Your task to perform on an android device: Go to Android settings Image 0: 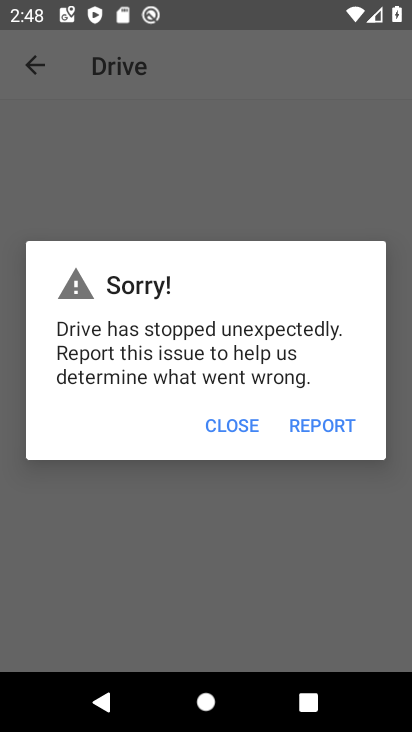
Step 0: press home button
Your task to perform on an android device: Go to Android settings Image 1: 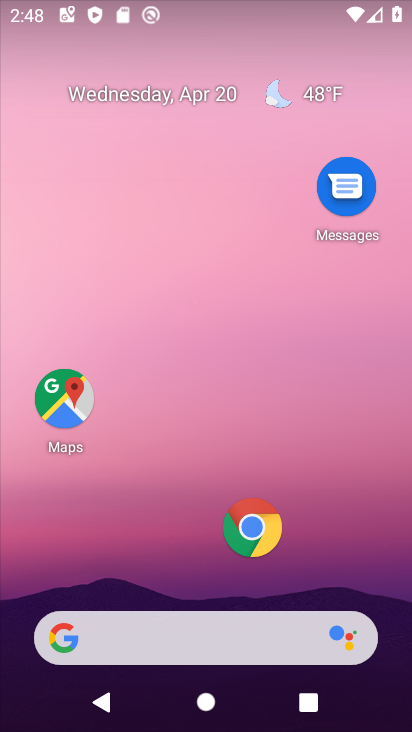
Step 1: drag from (183, 639) to (354, 24)
Your task to perform on an android device: Go to Android settings Image 2: 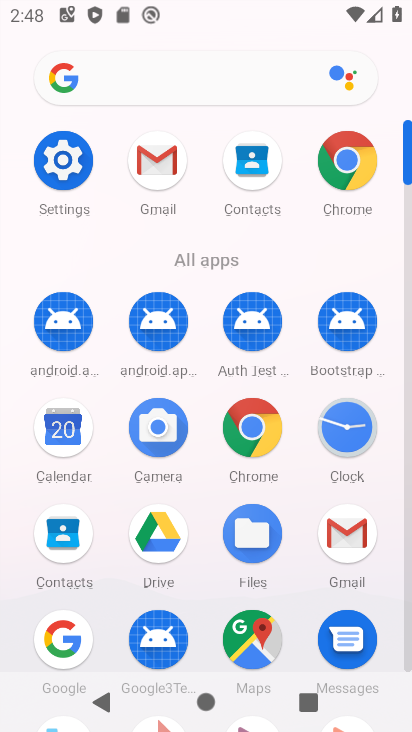
Step 2: click (73, 164)
Your task to perform on an android device: Go to Android settings Image 3: 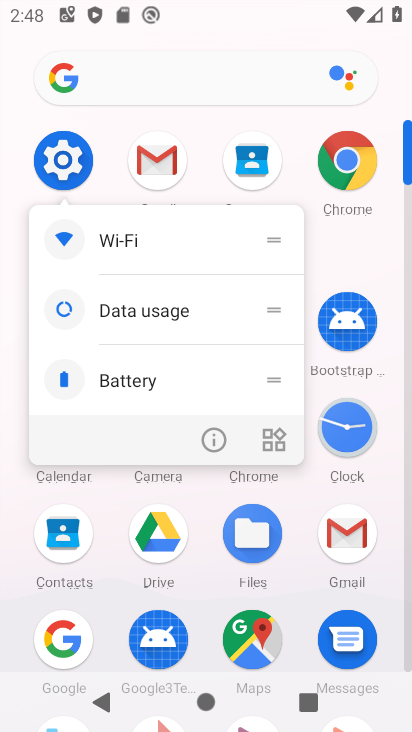
Step 3: click (66, 158)
Your task to perform on an android device: Go to Android settings Image 4: 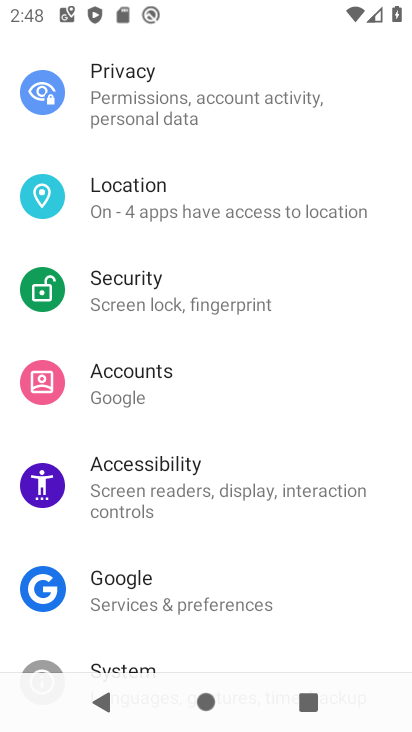
Step 4: drag from (205, 411) to (363, 114)
Your task to perform on an android device: Go to Android settings Image 5: 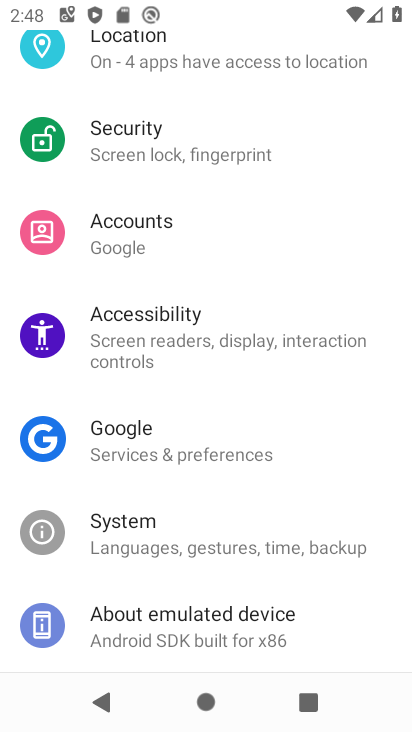
Step 5: click (180, 611)
Your task to perform on an android device: Go to Android settings Image 6: 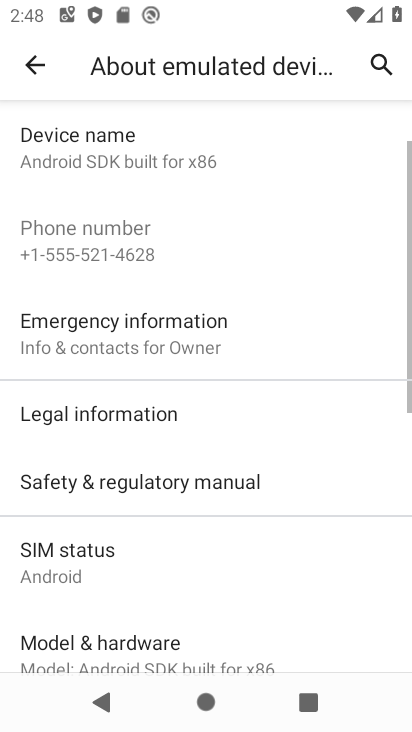
Step 6: drag from (180, 610) to (359, 169)
Your task to perform on an android device: Go to Android settings Image 7: 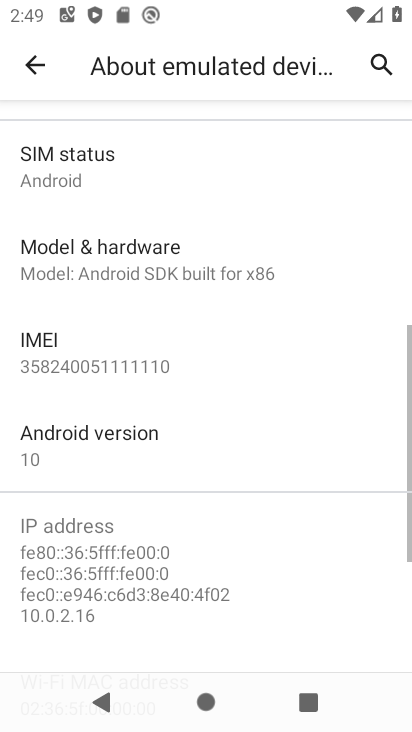
Step 7: click (123, 439)
Your task to perform on an android device: Go to Android settings Image 8: 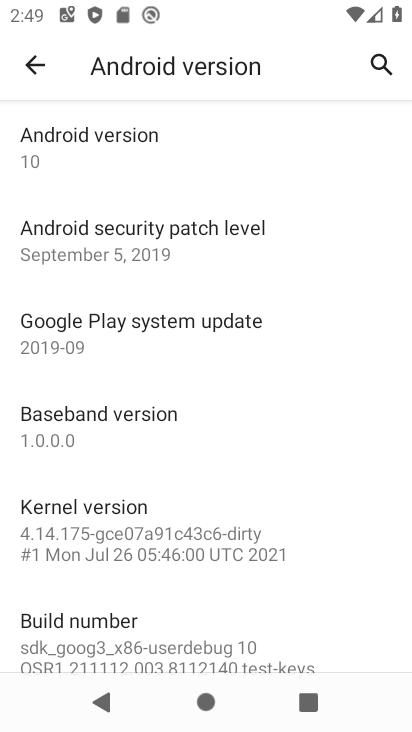
Step 8: task complete